Your task to perform on an android device: check out phone information Image 0: 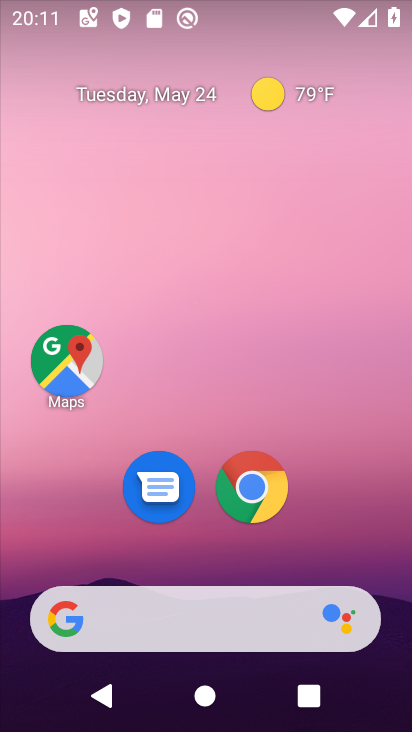
Step 0: drag from (81, 400) to (252, 93)
Your task to perform on an android device: check out phone information Image 1: 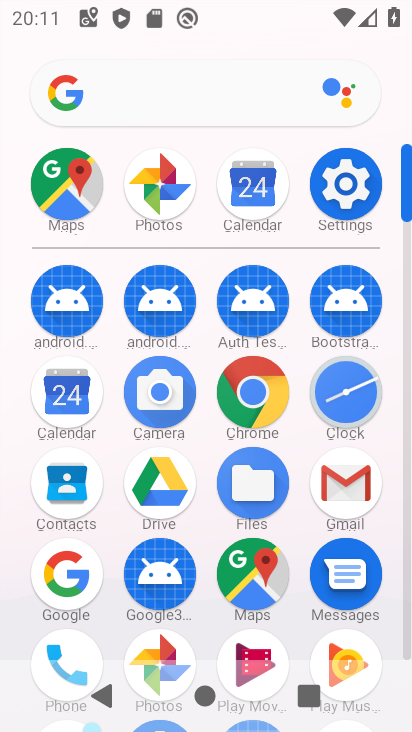
Step 1: click (63, 641)
Your task to perform on an android device: check out phone information Image 2: 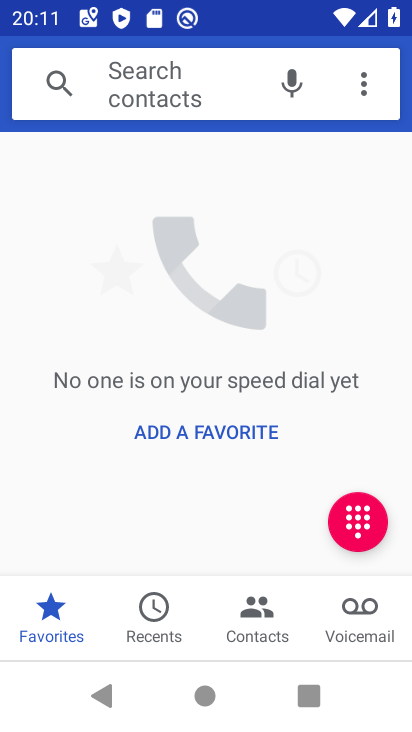
Step 2: task complete